Your task to perform on an android device: see tabs open on other devices in the chrome app Image 0: 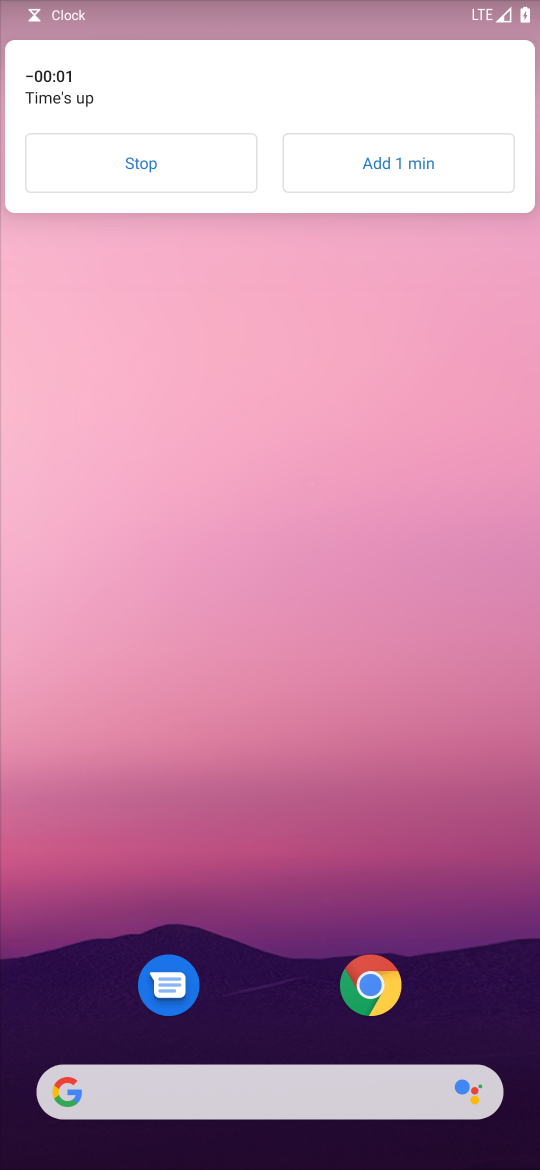
Step 0: click (372, 974)
Your task to perform on an android device: see tabs open on other devices in the chrome app Image 1: 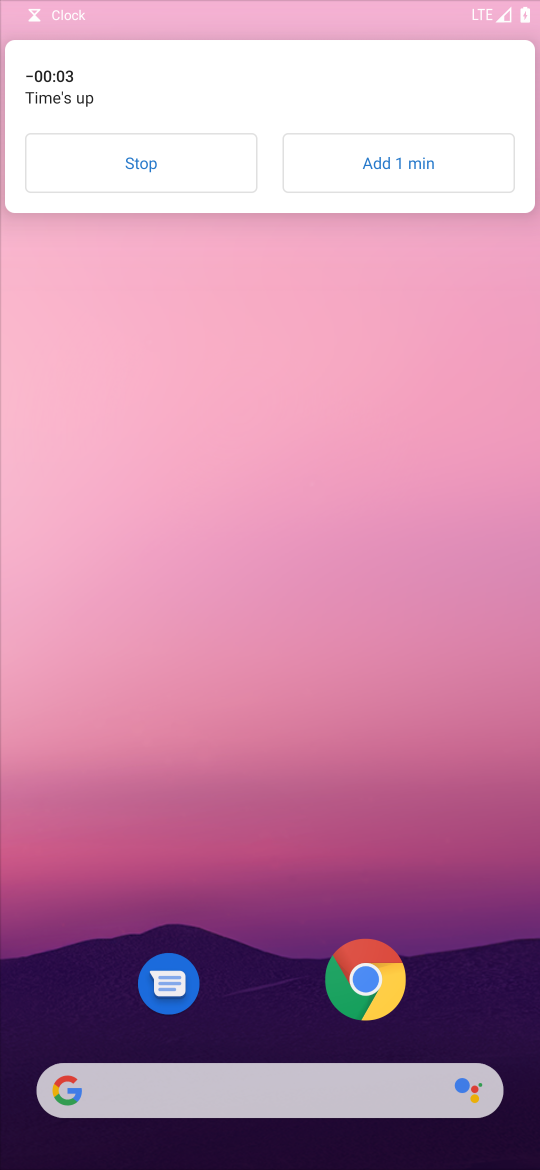
Step 1: click (170, 154)
Your task to perform on an android device: see tabs open on other devices in the chrome app Image 2: 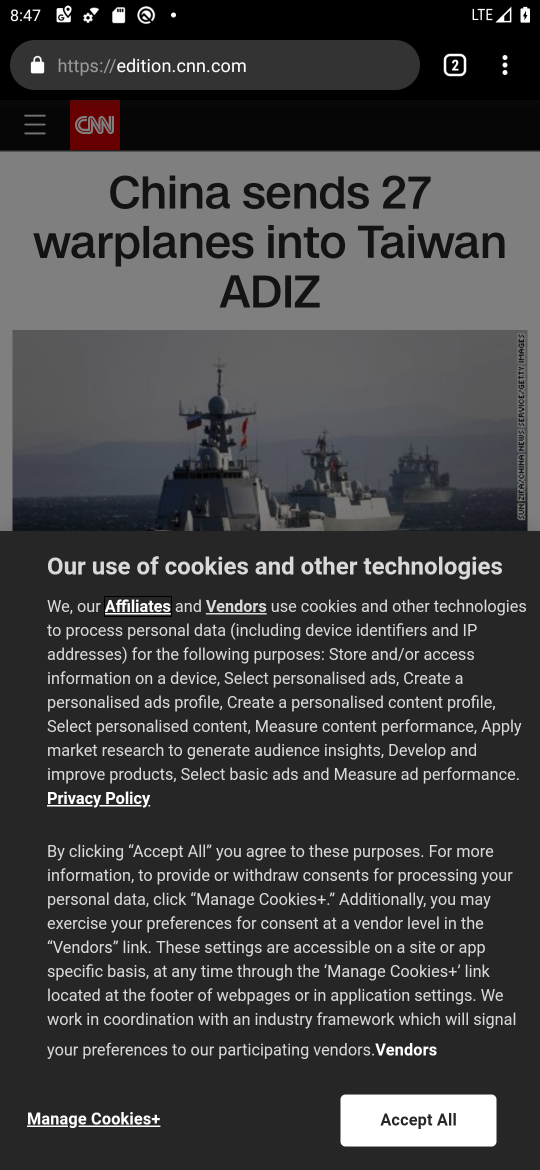
Step 2: click (507, 69)
Your task to perform on an android device: see tabs open on other devices in the chrome app Image 3: 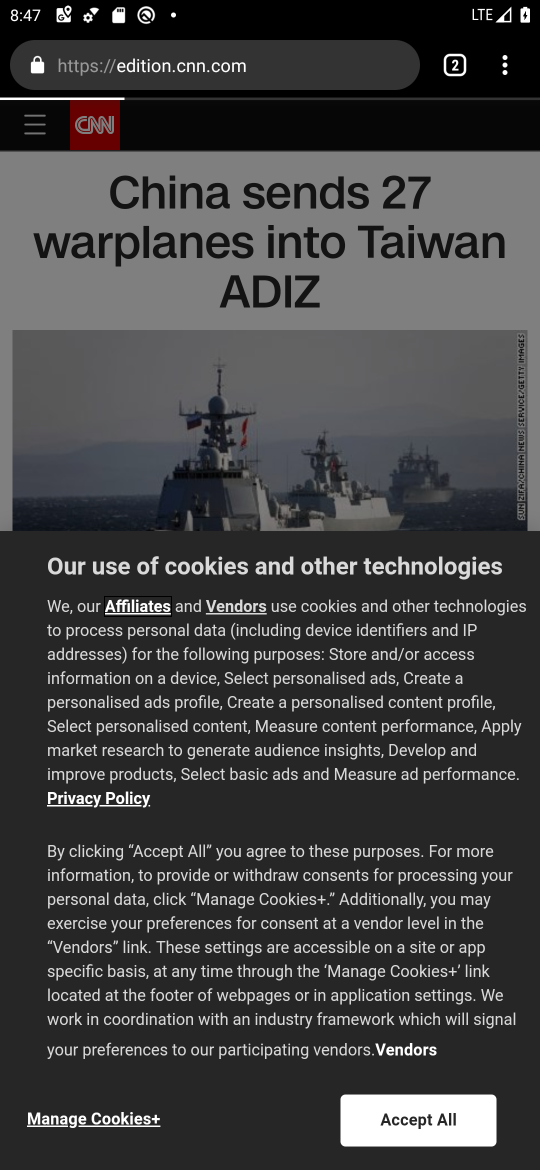
Step 3: task complete